Your task to perform on an android device: check the backup settings in the google photos Image 0: 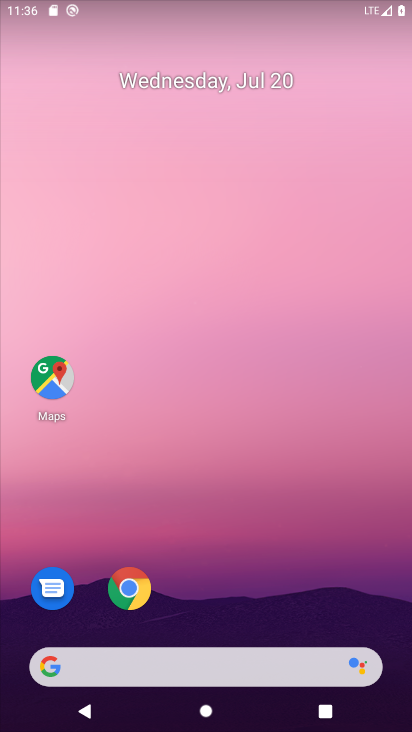
Step 0: press home button
Your task to perform on an android device: check the backup settings in the google photos Image 1: 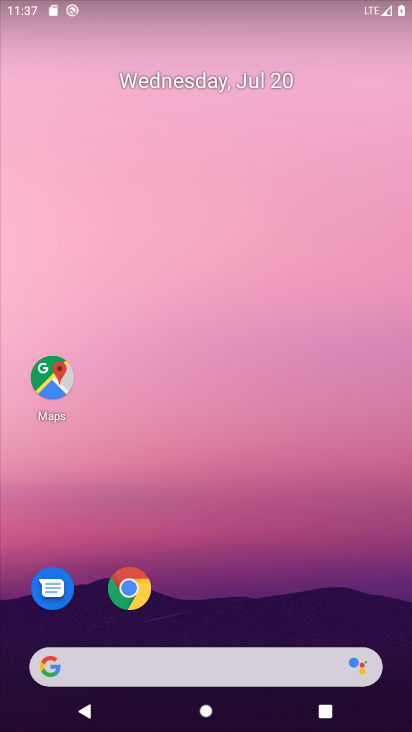
Step 1: drag from (248, 604) to (170, 52)
Your task to perform on an android device: check the backup settings in the google photos Image 2: 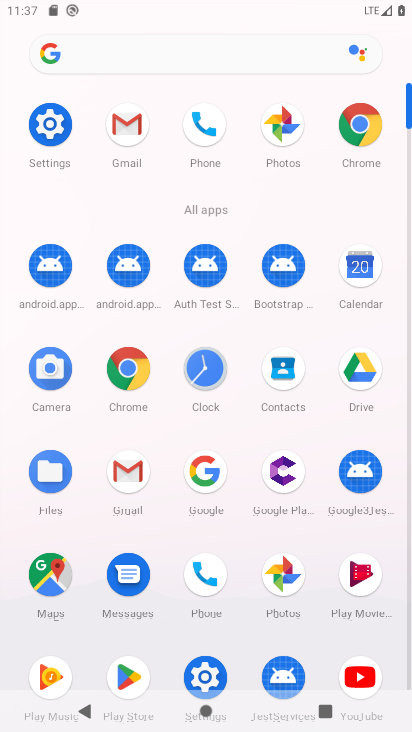
Step 2: click (282, 122)
Your task to perform on an android device: check the backup settings in the google photos Image 3: 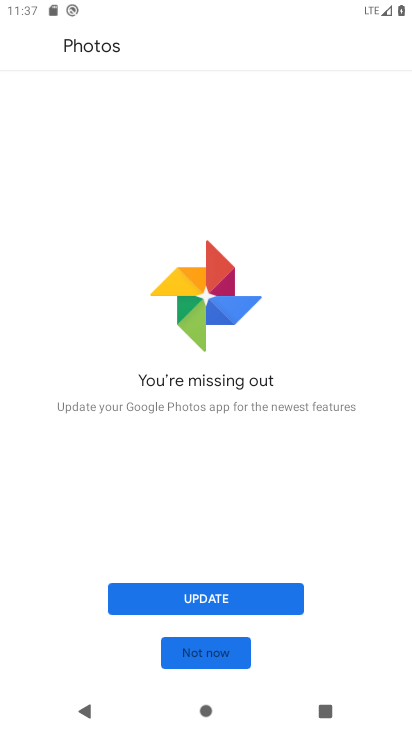
Step 3: click (203, 600)
Your task to perform on an android device: check the backup settings in the google photos Image 4: 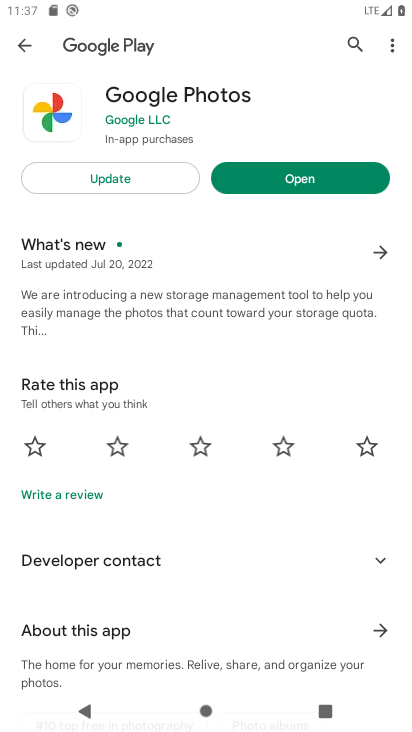
Step 4: click (119, 176)
Your task to perform on an android device: check the backup settings in the google photos Image 5: 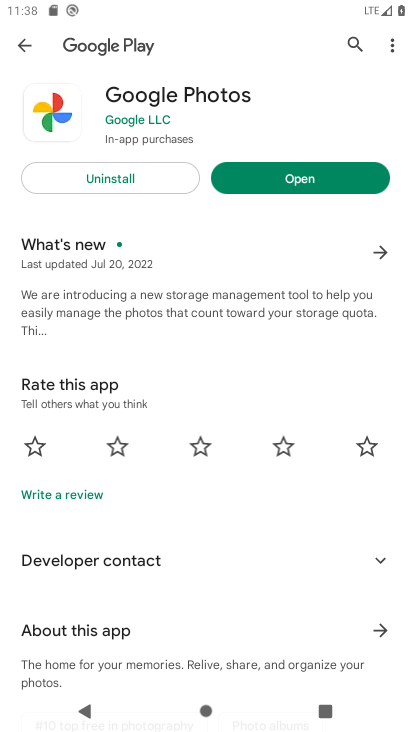
Step 5: click (294, 184)
Your task to perform on an android device: check the backup settings in the google photos Image 6: 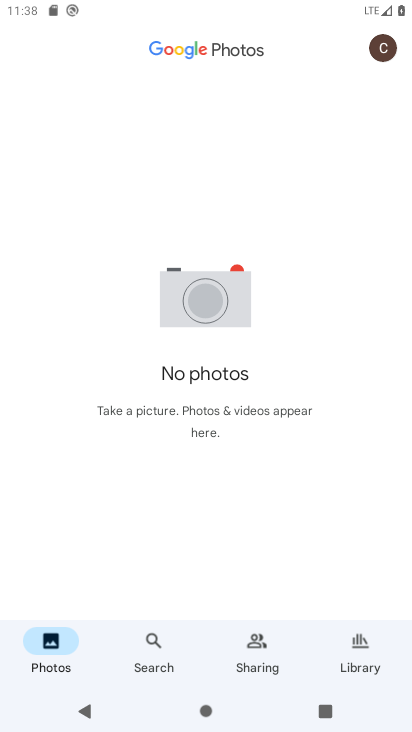
Step 6: click (380, 45)
Your task to perform on an android device: check the backup settings in the google photos Image 7: 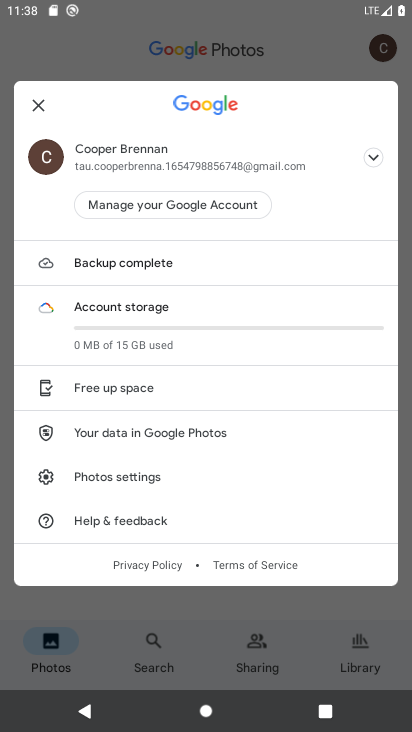
Step 7: click (140, 256)
Your task to perform on an android device: check the backup settings in the google photos Image 8: 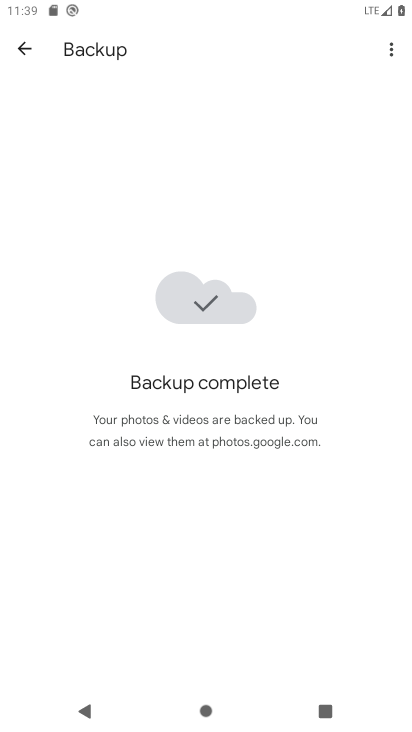
Step 8: click (384, 54)
Your task to perform on an android device: check the backup settings in the google photos Image 9: 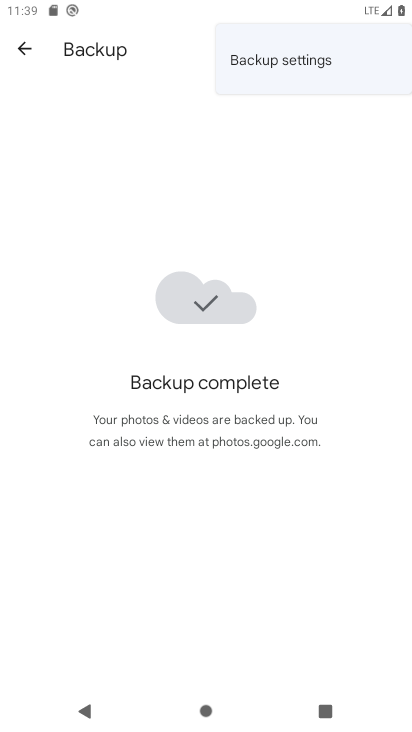
Step 9: click (326, 55)
Your task to perform on an android device: check the backup settings in the google photos Image 10: 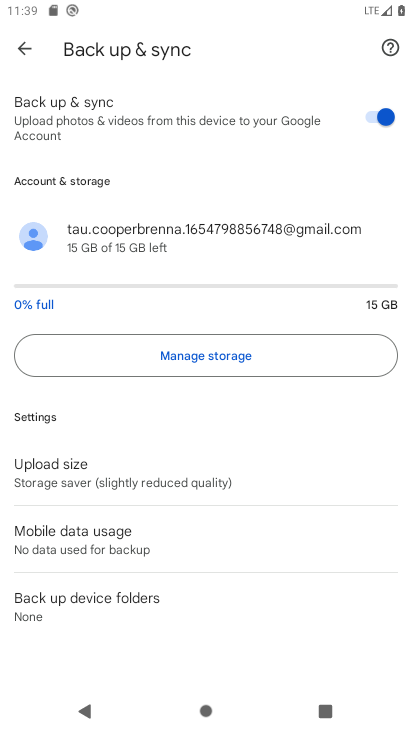
Step 10: task complete